Your task to perform on an android device: Do I have any events this weekend? Image 0: 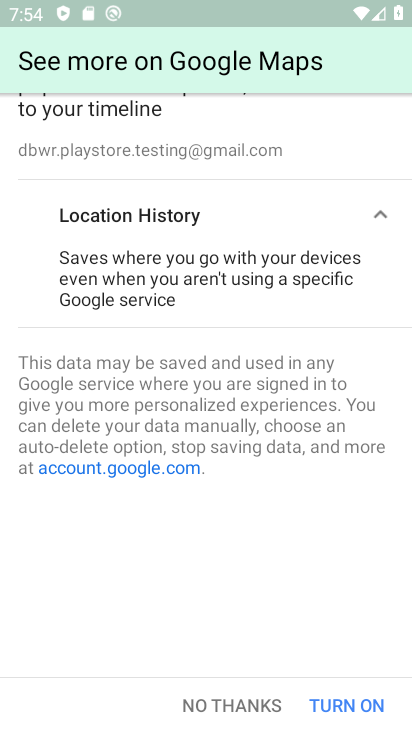
Step 0: press home button
Your task to perform on an android device: Do I have any events this weekend? Image 1: 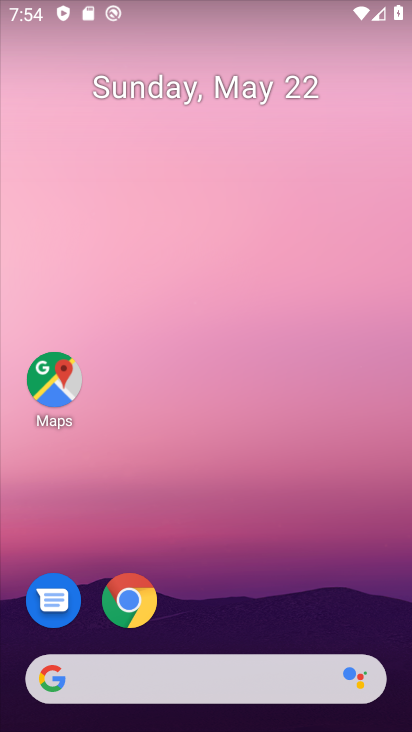
Step 1: drag from (183, 654) to (216, 255)
Your task to perform on an android device: Do I have any events this weekend? Image 2: 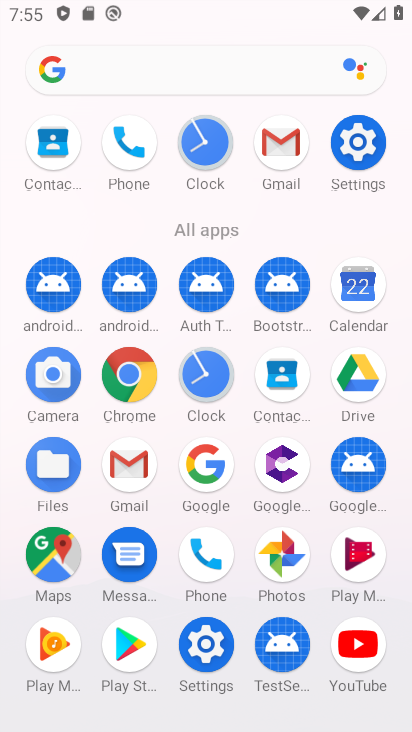
Step 2: click (354, 293)
Your task to perform on an android device: Do I have any events this weekend? Image 3: 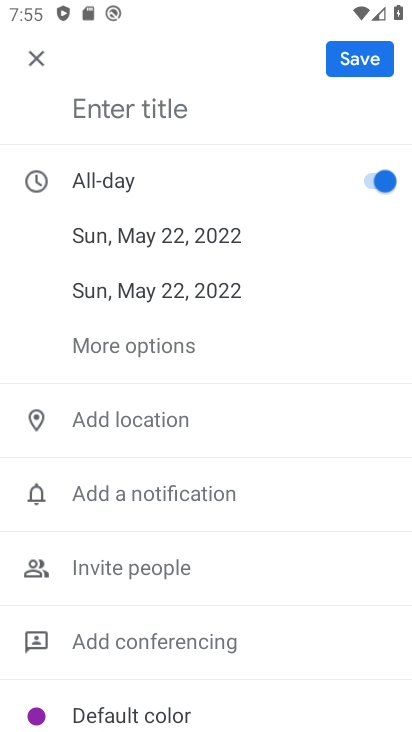
Step 3: click (33, 46)
Your task to perform on an android device: Do I have any events this weekend? Image 4: 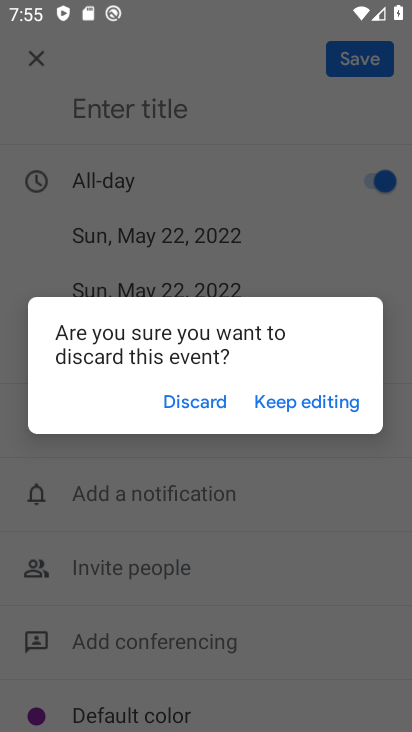
Step 4: click (198, 409)
Your task to perform on an android device: Do I have any events this weekend? Image 5: 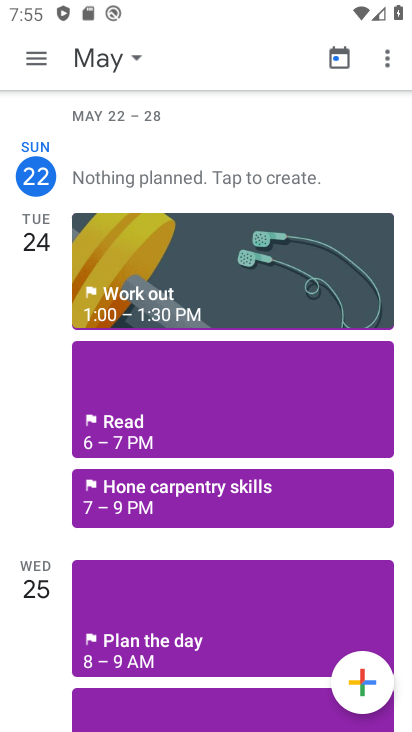
Step 5: drag from (192, 603) to (182, 227)
Your task to perform on an android device: Do I have any events this weekend? Image 6: 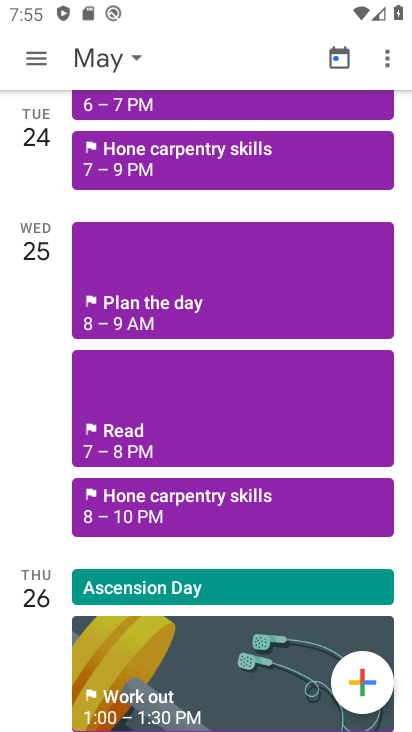
Step 6: drag from (188, 533) to (188, 232)
Your task to perform on an android device: Do I have any events this weekend? Image 7: 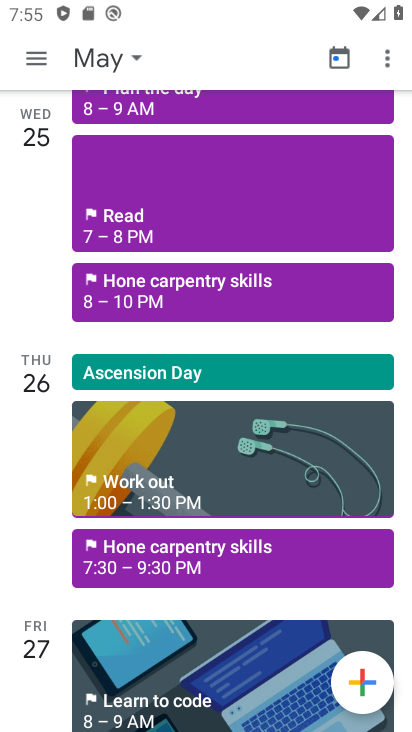
Step 7: click (182, 456)
Your task to perform on an android device: Do I have any events this weekend? Image 8: 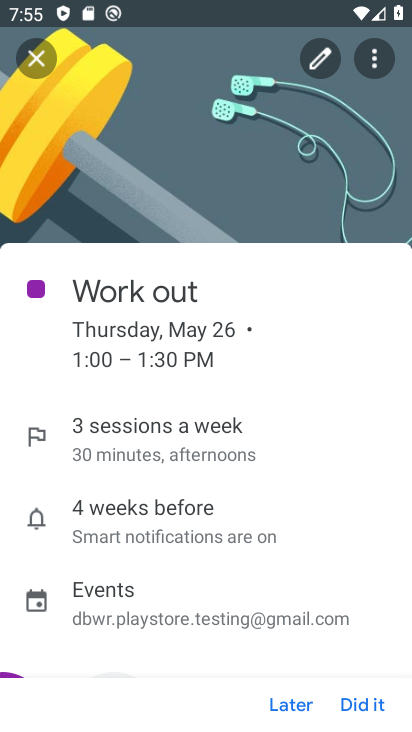
Step 8: click (25, 59)
Your task to perform on an android device: Do I have any events this weekend? Image 9: 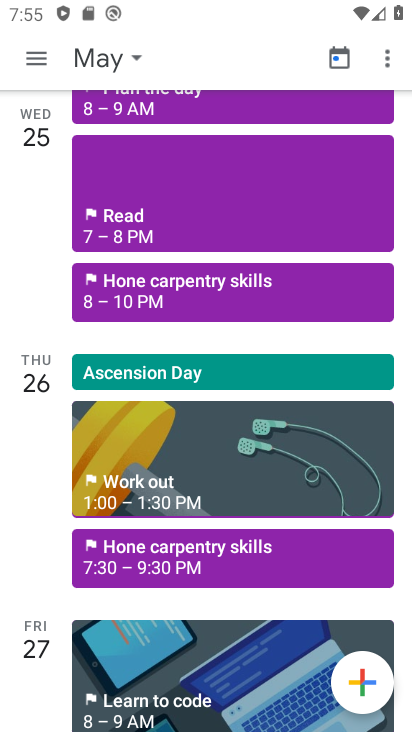
Step 9: drag from (219, 676) to (250, 371)
Your task to perform on an android device: Do I have any events this weekend? Image 10: 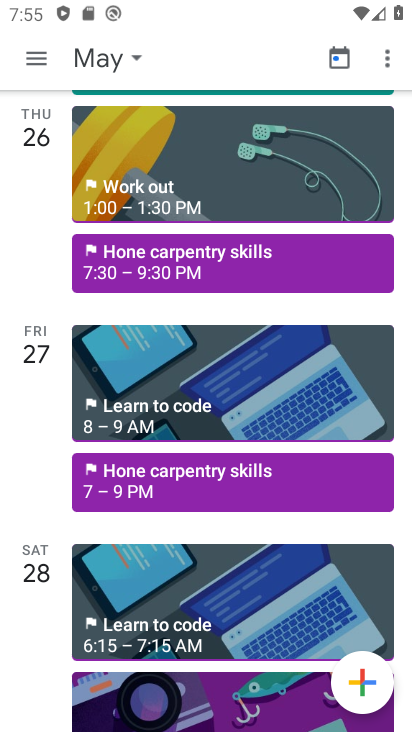
Step 10: click (220, 636)
Your task to perform on an android device: Do I have any events this weekend? Image 11: 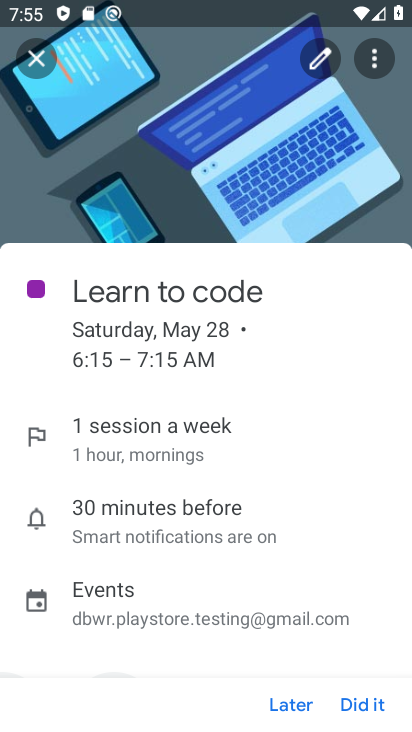
Step 11: task complete